Your task to perform on an android device: turn off smart reply in the gmail app Image 0: 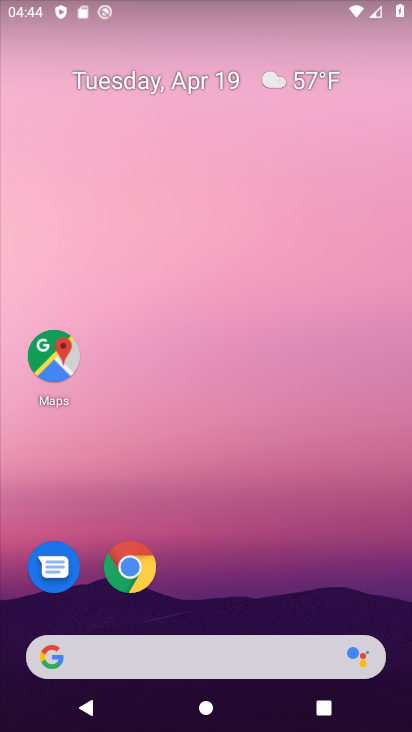
Step 0: drag from (361, 585) to (362, 153)
Your task to perform on an android device: turn off smart reply in the gmail app Image 1: 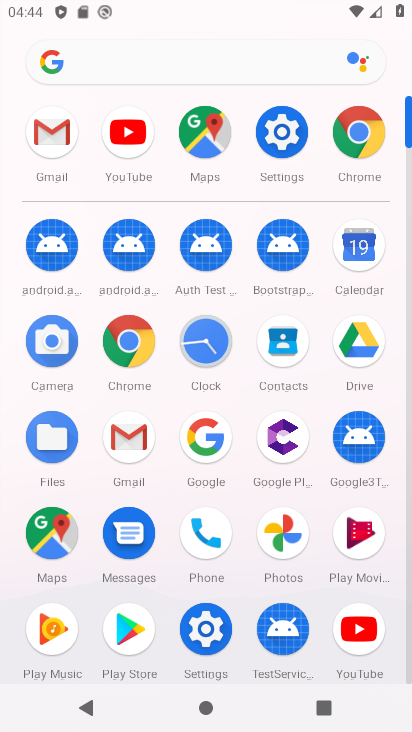
Step 1: click (144, 447)
Your task to perform on an android device: turn off smart reply in the gmail app Image 2: 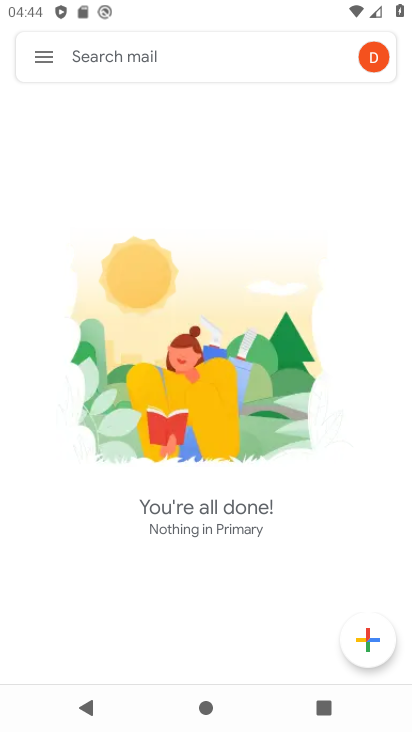
Step 2: click (41, 61)
Your task to perform on an android device: turn off smart reply in the gmail app Image 3: 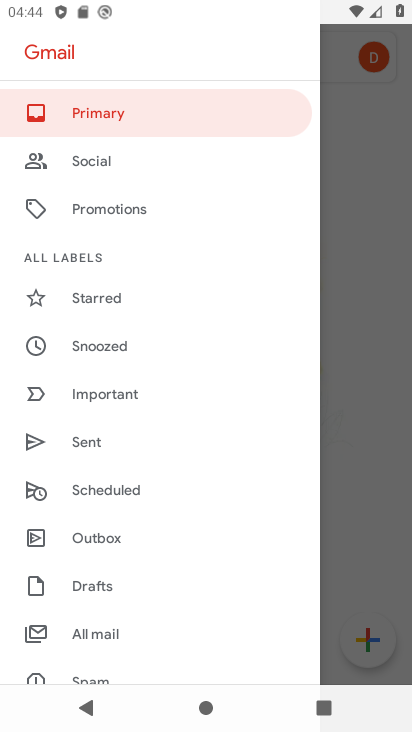
Step 3: drag from (247, 526) to (254, 414)
Your task to perform on an android device: turn off smart reply in the gmail app Image 4: 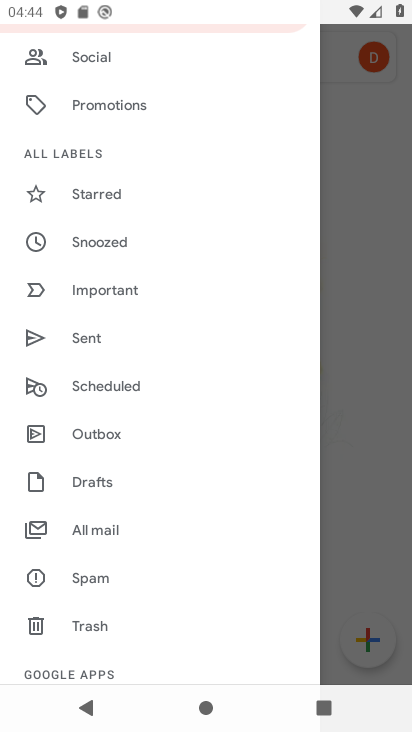
Step 4: drag from (251, 529) to (259, 393)
Your task to perform on an android device: turn off smart reply in the gmail app Image 5: 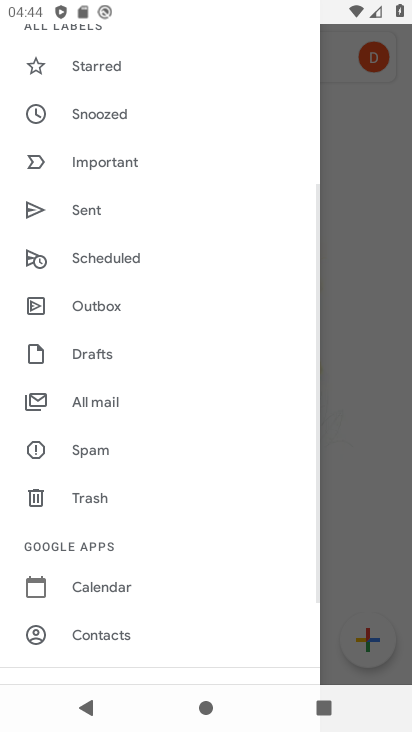
Step 5: drag from (244, 547) to (252, 375)
Your task to perform on an android device: turn off smart reply in the gmail app Image 6: 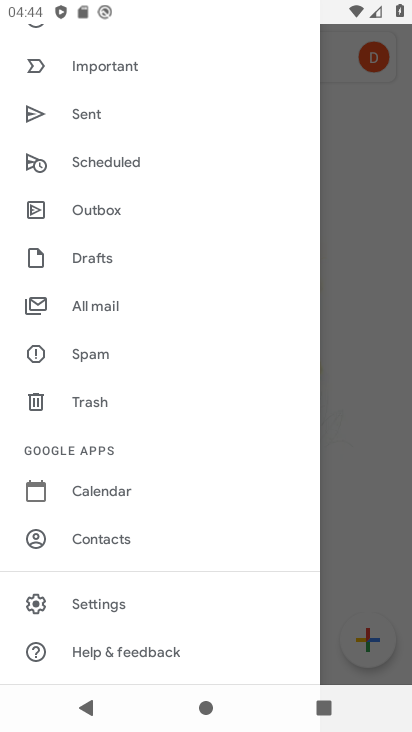
Step 6: click (121, 602)
Your task to perform on an android device: turn off smart reply in the gmail app Image 7: 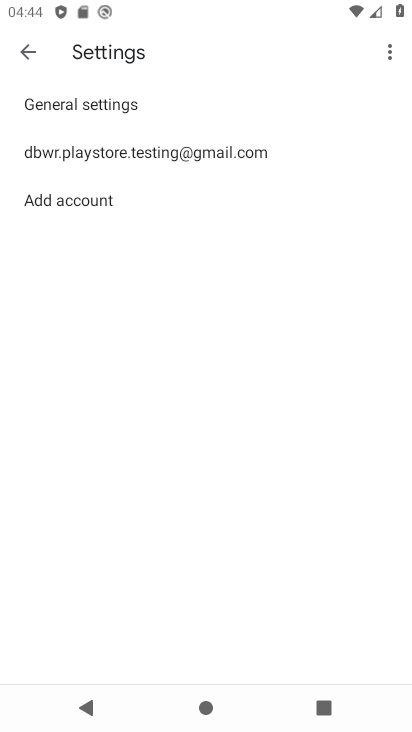
Step 7: click (196, 154)
Your task to perform on an android device: turn off smart reply in the gmail app Image 8: 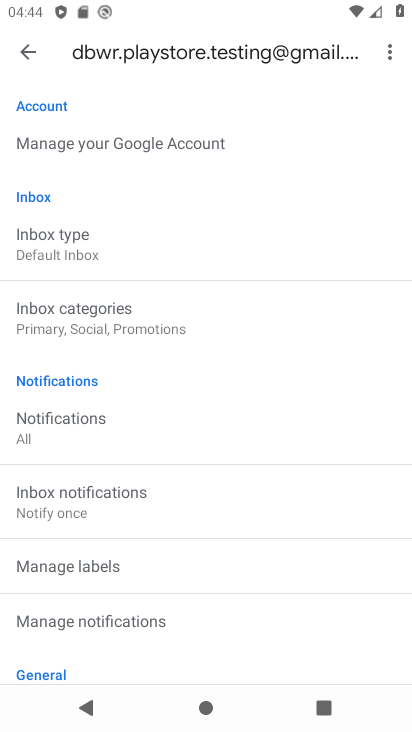
Step 8: drag from (285, 539) to (301, 397)
Your task to perform on an android device: turn off smart reply in the gmail app Image 9: 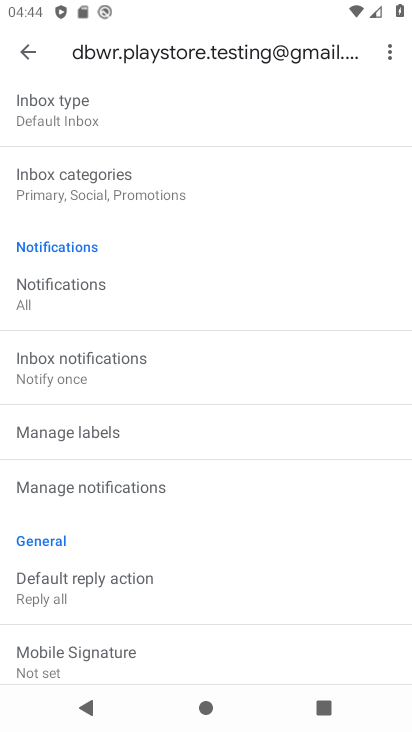
Step 9: drag from (304, 567) to (310, 433)
Your task to perform on an android device: turn off smart reply in the gmail app Image 10: 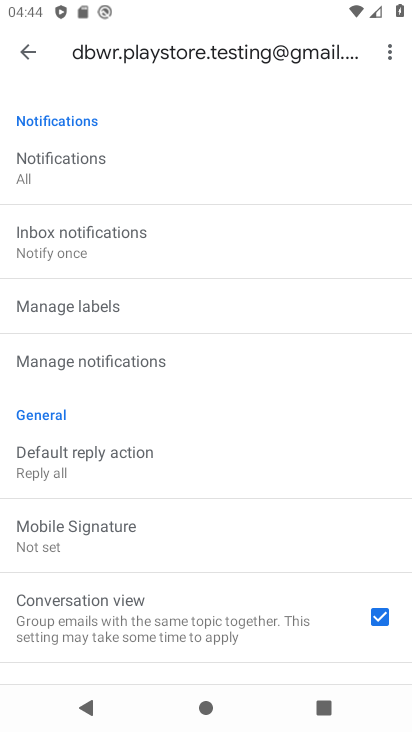
Step 10: drag from (303, 546) to (311, 408)
Your task to perform on an android device: turn off smart reply in the gmail app Image 11: 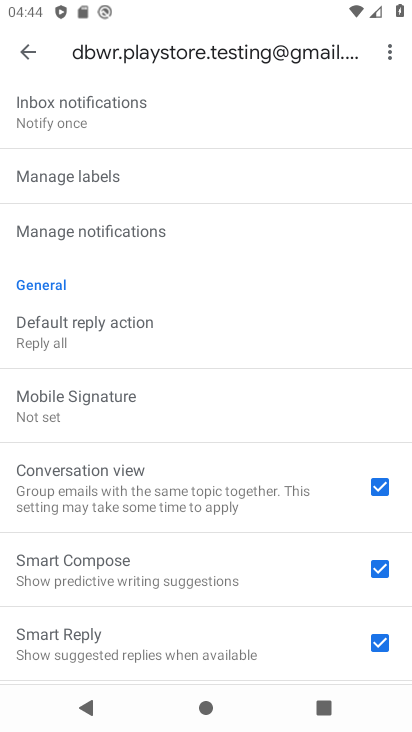
Step 11: drag from (288, 572) to (287, 388)
Your task to perform on an android device: turn off smart reply in the gmail app Image 12: 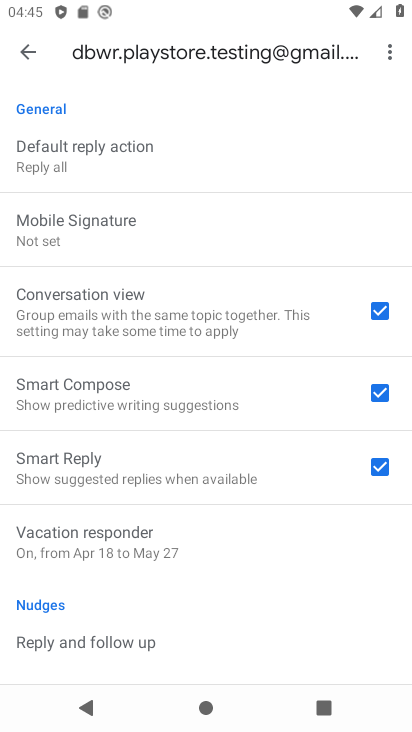
Step 12: drag from (267, 573) to (289, 366)
Your task to perform on an android device: turn off smart reply in the gmail app Image 13: 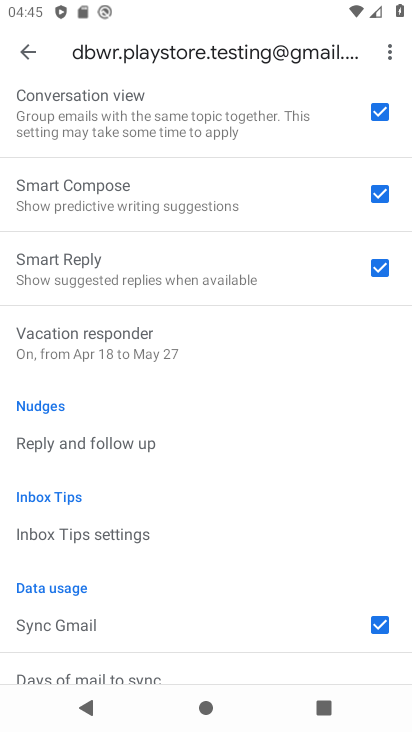
Step 13: click (384, 265)
Your task to perform on an android device: turn off smart reply in the gmail app Image 14: 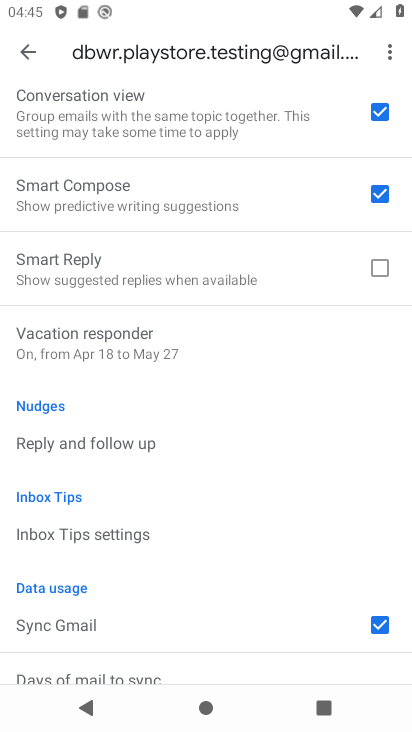
Step 14: task complete